Your task to perform on an android device: Open Google Chrome and click the shortcut for Amazon.com Image 0: 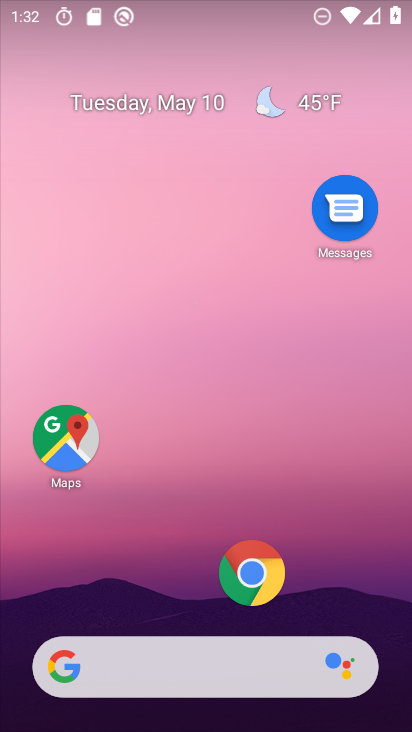
Step 0: drag from (262, 147) to (272, 51)
Your task to perform on an android device: Open Google Chrome and click the shortcut for Amazon.com Image 1: 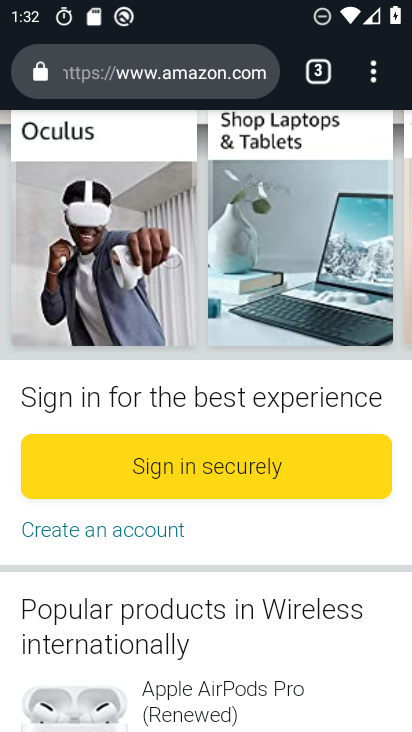
Step 1: click (325, 73)
Your task to perform on an android device: Open Google Chrome and click the shortcut for Amazon.com Image 2: 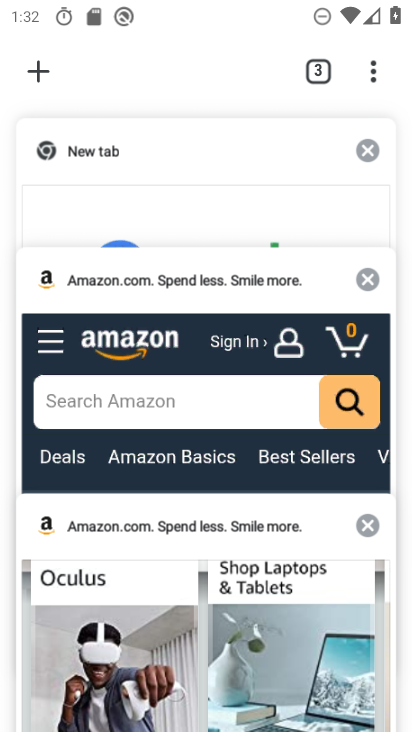
Step 2: click (369, 526)
Your task to perform on an android device: Open Google Chrome and click the shortcut for Amazon.com Image 3: 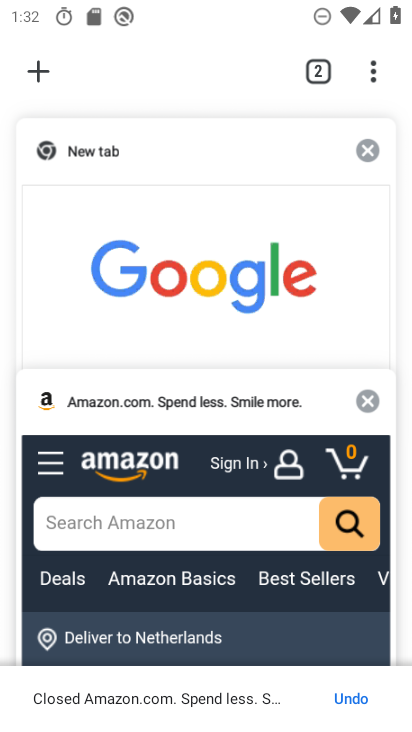
Step 3: click (372, 402)
Your task to perform on an android device: Open Google Chrome and click the shortcut for Amazon.com Image 4: 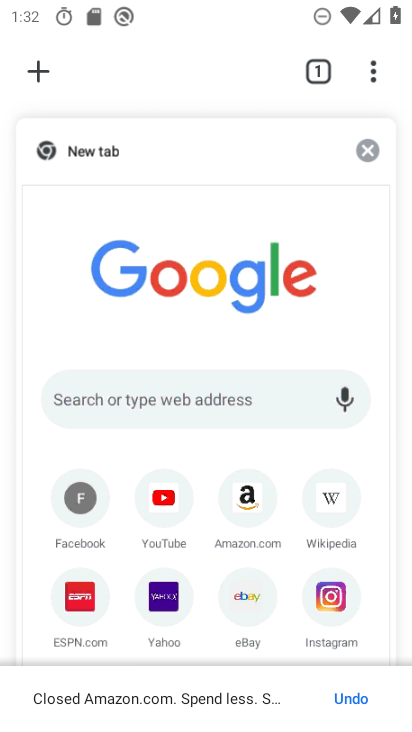
Step 4: click (38, 71)
Your task to perform on an android device: Open Google Chrome and click the shortcut for Amazon.com Image 5: 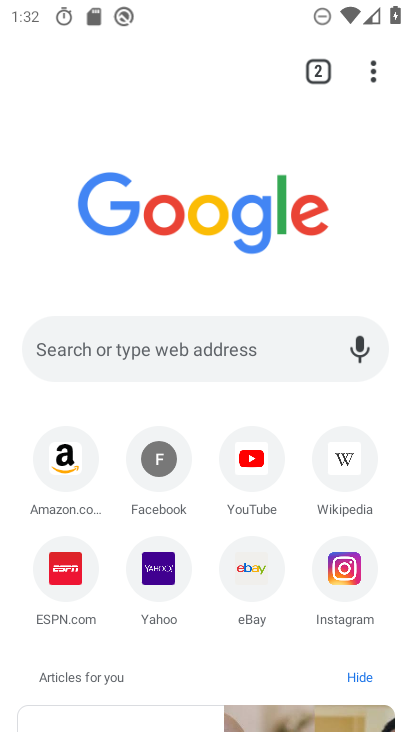
Step 5: click (69, 464)
Your task to perform on an android device: Open Google Chrome and click the shortcut for Amazon.com Image 6: 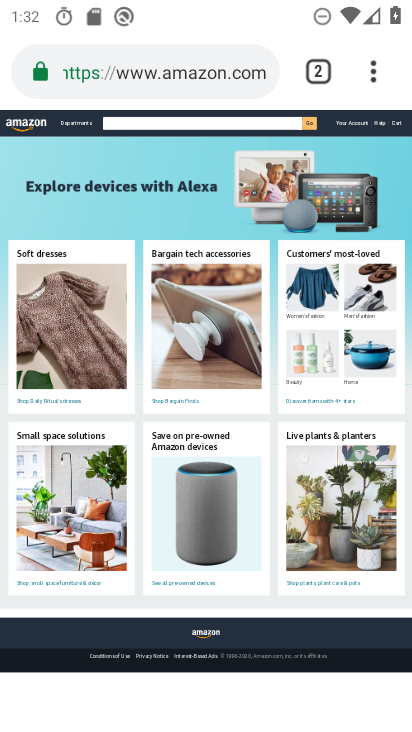
Step 6: task complete